Your task to perform on an android device: Open the Play Movies app and select the watchlist tab. Image 0: 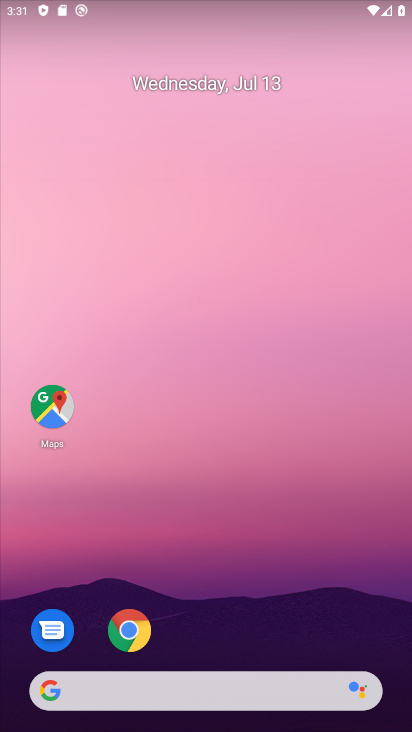
Step 0: drag from (229, 558) to (108, 128)
Your task to perform on an android device: Open the Play Movies app and select the watchlist tab. Image 1: 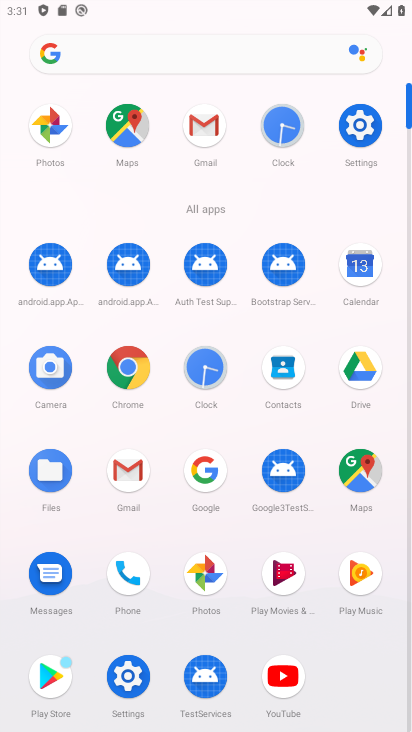
Step 1: click (264, 586)
Your task to perform on an android device: Open the Play Movies app and select the watchlist tab. Image 2: 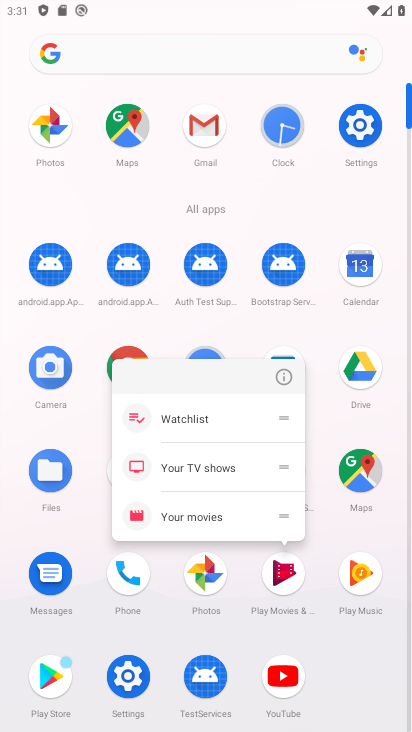
Step 2: click (266, 587)
Your task to perform on an android device: Open the Play Movies app and select the watchlist tab. Image 3: 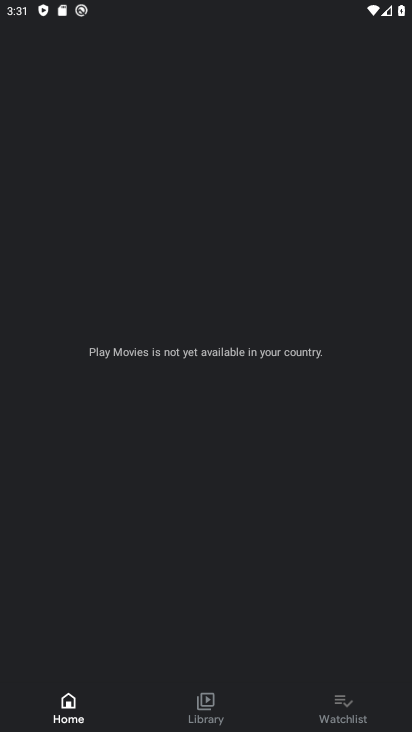
Step 3: click (337, 698)
Your task to perform on an android device: Open the Play Movies app and select the watchlist tab. Image 4: 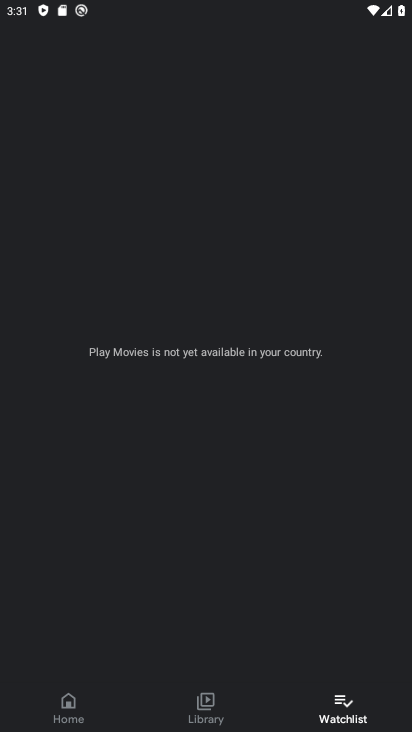
Step 4: task complete